Your task to perform on an android device: Search for the best coffee tables on Crate & Barrel Image 0: 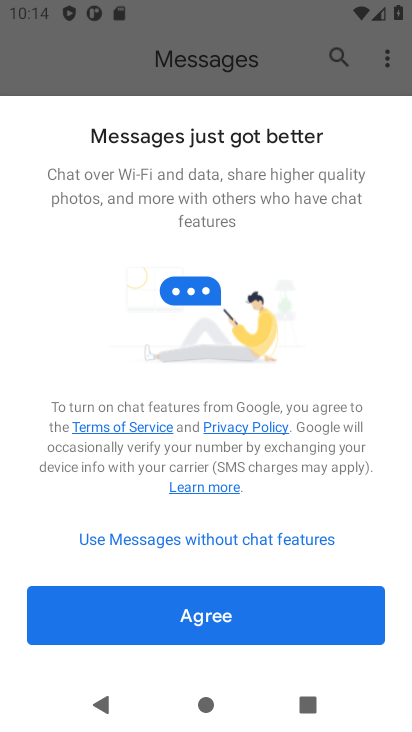
Step 0: press home button
Your task to perform on an android device: Search for the best coffee tables on Crate & Barrel Image 1: 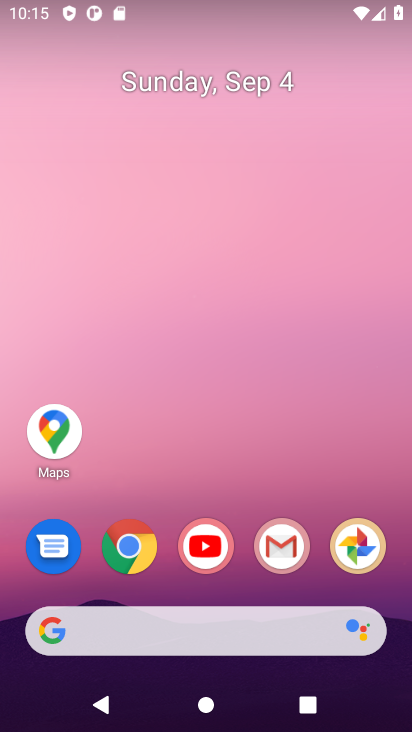
Step 1: click (127, 551)
Your task to perform on an android device: Search for the best coffee tables on Crate & Barrel Image 2: 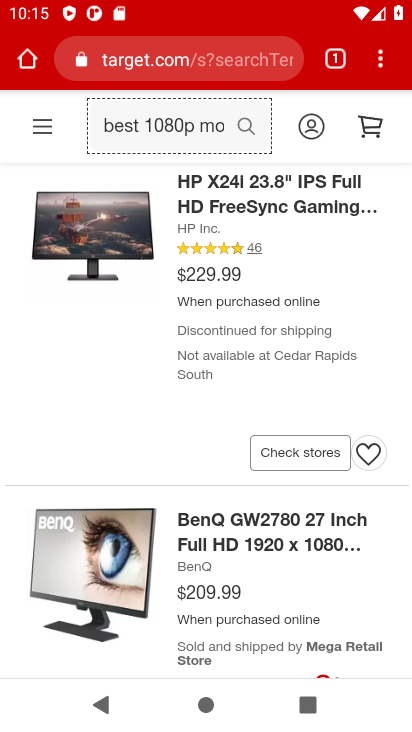
Step 2: click (233, 60)
Your task to perform on an android device: Search for the best coffee tables on Crate & Barrel Image 3: 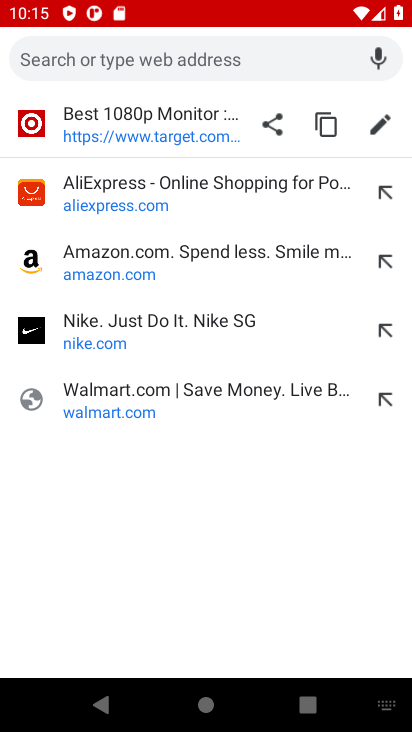
Step 3: type "Crate & Barrel"
Your task to perform on an android device: Search for the best coffee tables on Crate & Barrel Image 4: 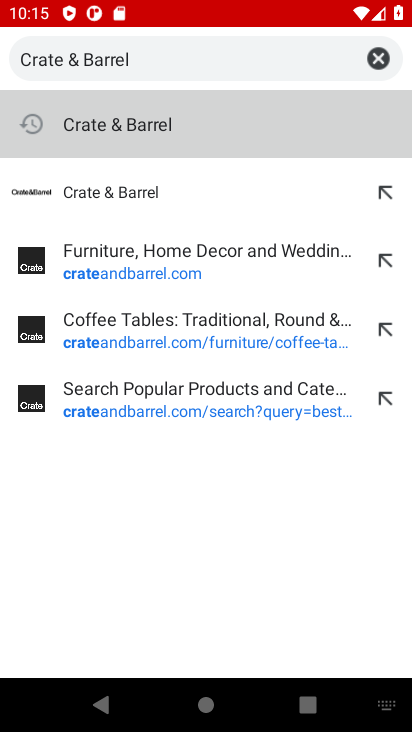
Step 4: click (107, 128)
Your task to perform on an android device: Search for the best coffee tables on Crate & Barrel Image 5: 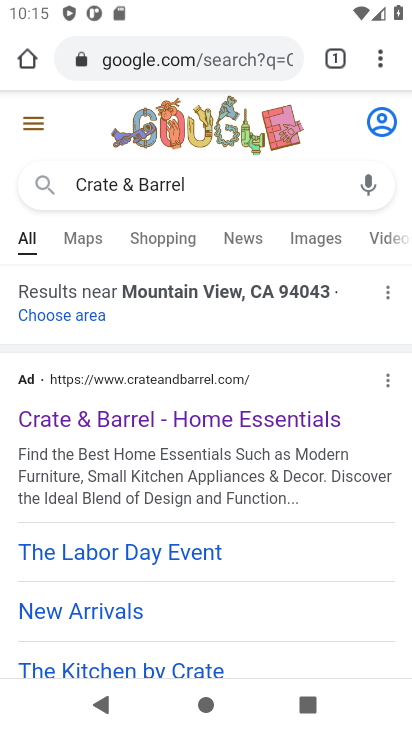
Step 5: click (89, 421)
Your task to perform on an android device: Search for the best coffee tables on Crate & Barrel Image 6: 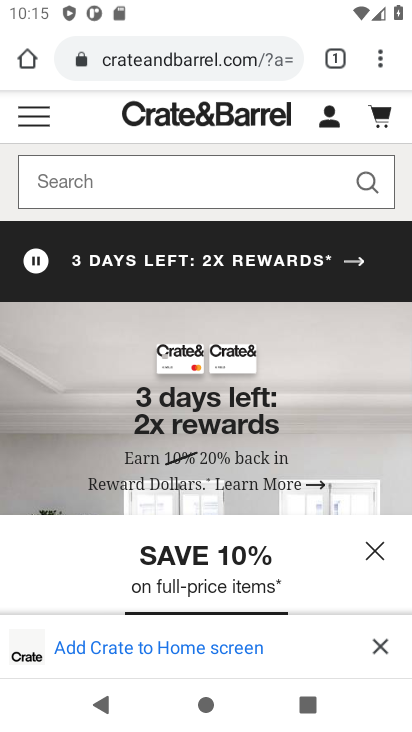
Step 6: click (78, 188)
Your task to perform on an android device: Search for the best coffee tables on Crate & Barrel Image 7: 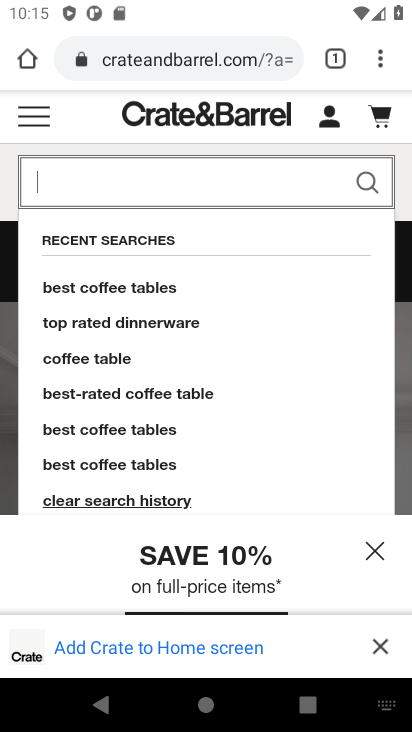
Step 7: type "best coffee tables "
Your task to perform on an android device: Search for the best coffee tables on Crate & Barrel Image 8: 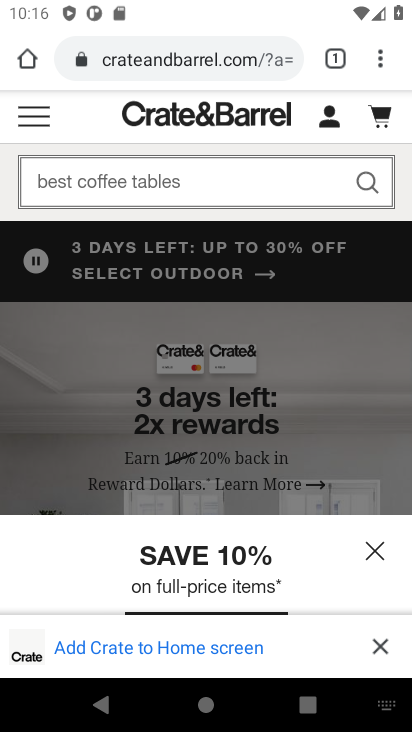
Step 8: click (366, 182)
Your task to perform on an android device: Search for the best coffee tables on Crate & Barrel Image 9: 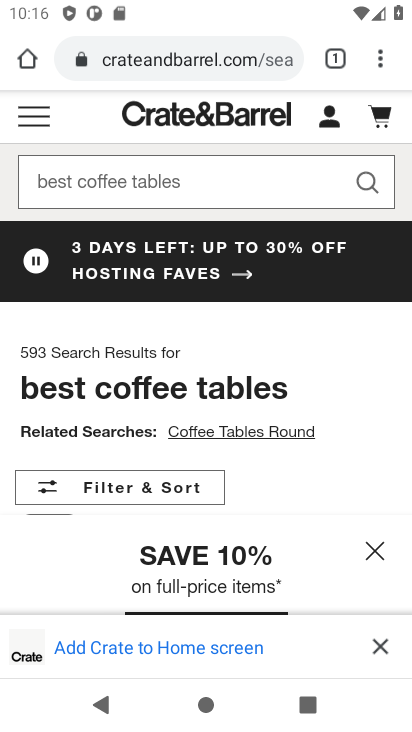
Step 9: drag from (303, 212) to (297, 152)
Your task to perform on an android device: Search for the best coffee tables on Crate & Barrel Image 10: 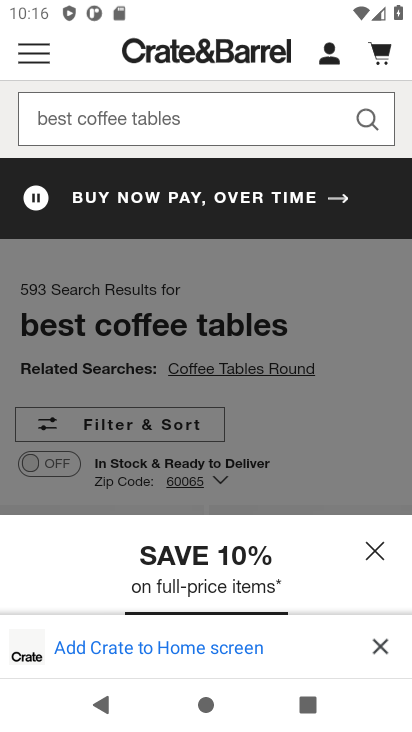
Step 10: drag from (267, 407) to (240, 124)
Your task to perform on an android device: Search for the best coffee tables on Crate & Barrel Image 11: 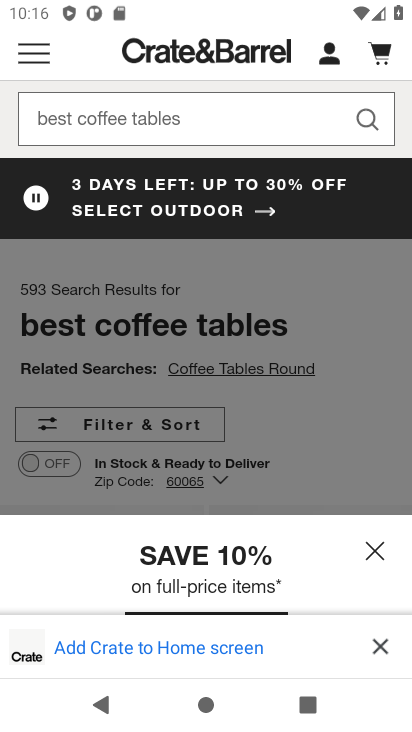
Step 11: drag from (316, 439) to (290, 202)
Your task to perform on an android device: Search for the best coffee tables on Crate & Barrel Image 12: 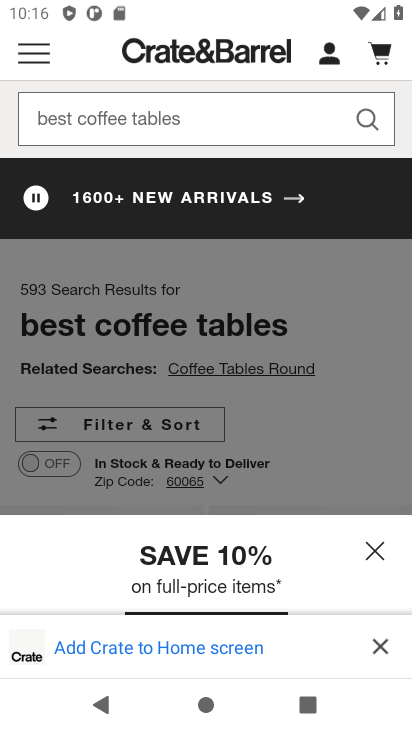
Step 12: click (380, 554)
Your task to perform on an android device: Search for the best coffee tables on Crate & Barrel Image 13: 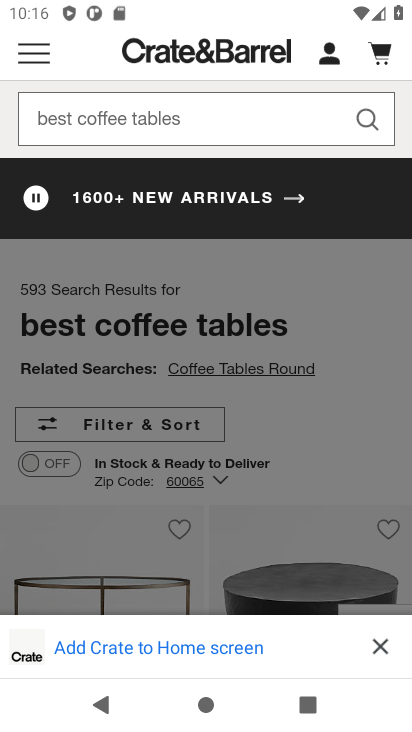
Step 13: drag from (252, 372) to (243, 286)
Your task to perform on an android device: Search for the best coffee tables on Crate & Barrel Image 14: 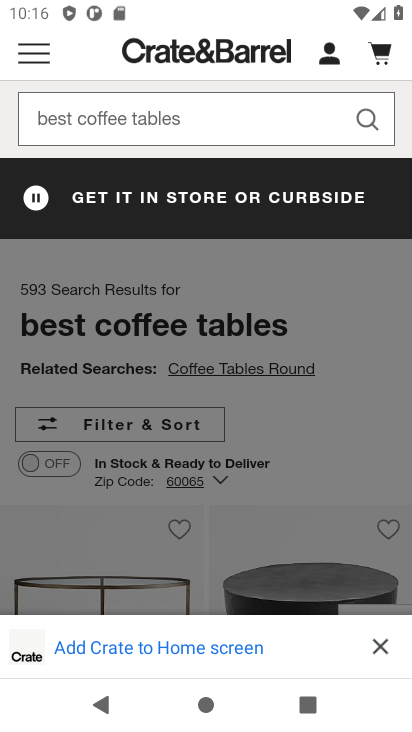
Step 14: click (379, 647)
Your task to perform on an android device: Search for the best coffee tables on Crate & Barrel Image 15: 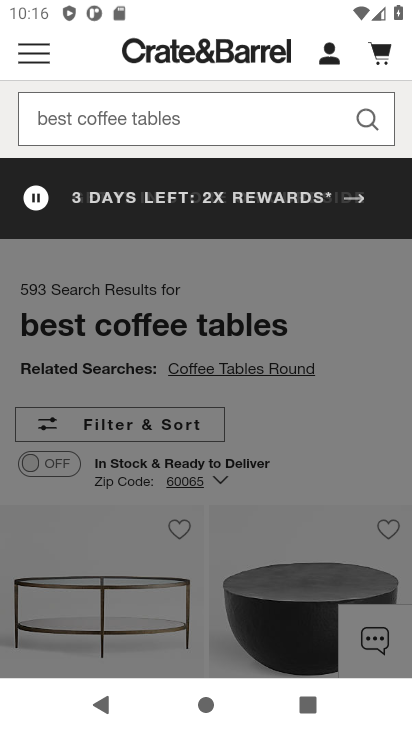
Step 15: task complete